Your task to perform on an android device: turn off translation in the chrome app Image 0: 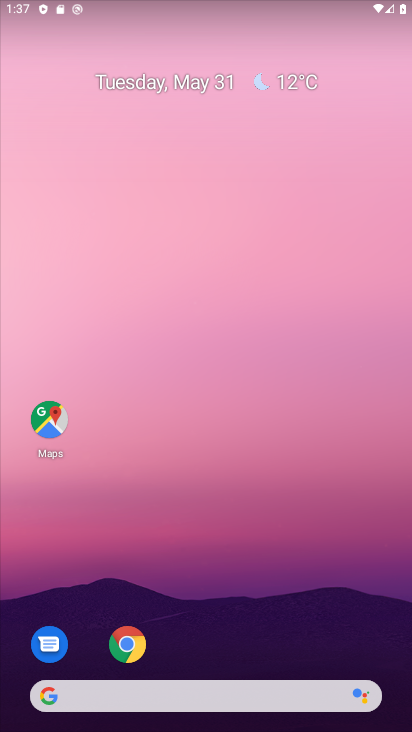
Step 0: click (132, 655)
Your task to perform on an android device: turn off translation in the chrome app Image 1: 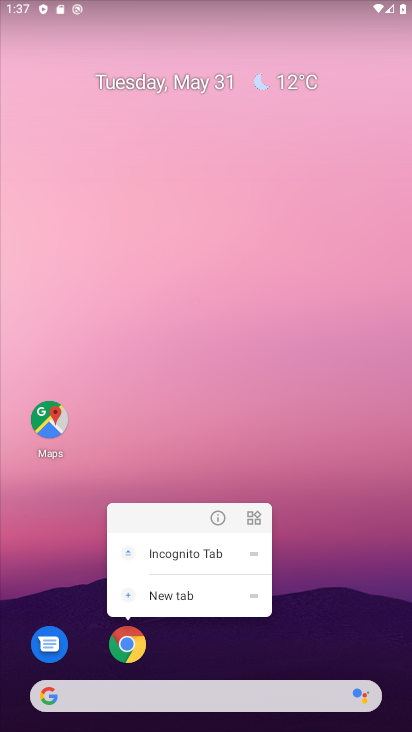
Step 1: click (132, 649)
Your task to perform on an android device: turn off translation in the chrome app Image 2: 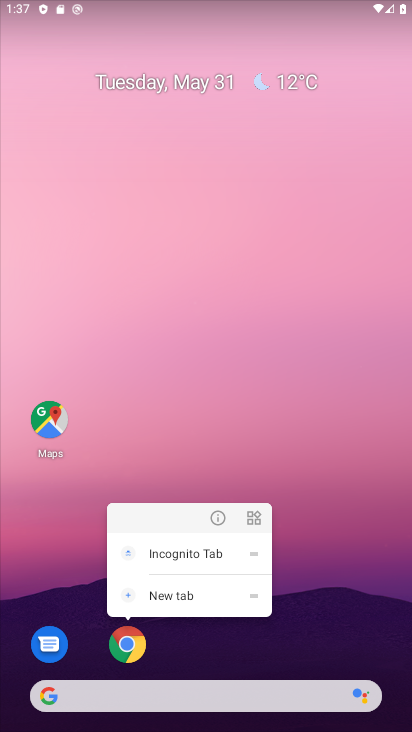
Step 2: click (132, 645)
Your task to perform on an android device: turn off translation in the chrome app Image 3: 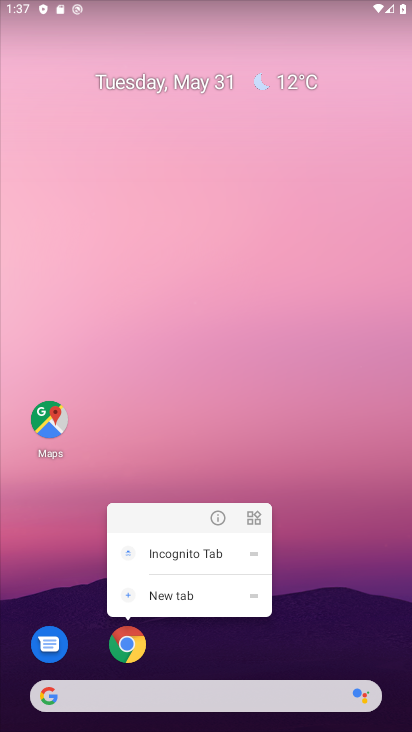
Step 3: click (132, 645)
Your task to perform on an android device: turn off translation in the chrome app Image 4: 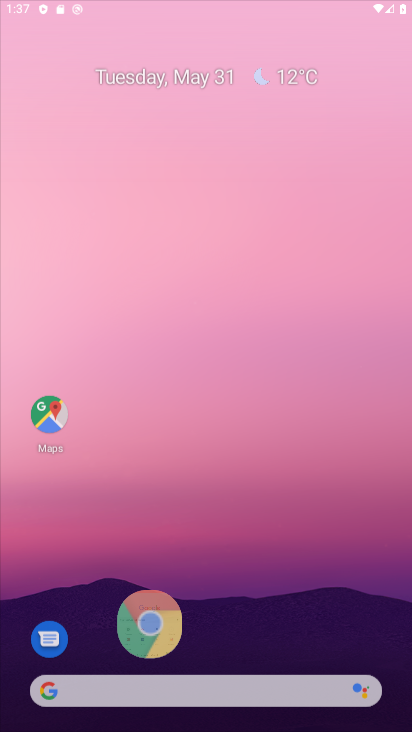
Step 4: click (132, 645)
Your task to perform on an android device: turn off translation in the chrome app Image 5: 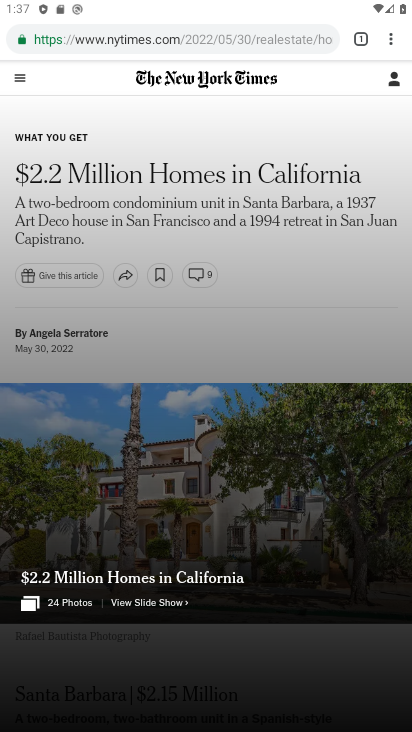
Step 5: drag from (399, 40) to (303, 481)
Your task to perform on an android device: turn off translation in the chrome app Image 6: 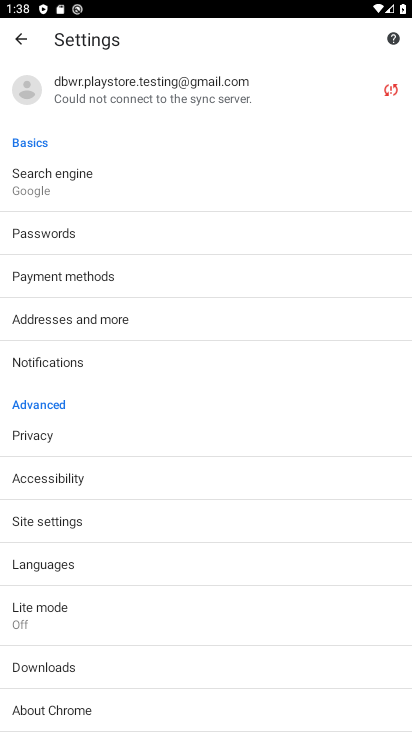
Step 6: click (75, 556)
Your task to perform on an android device: turn off translation in the chrome app Image 7: 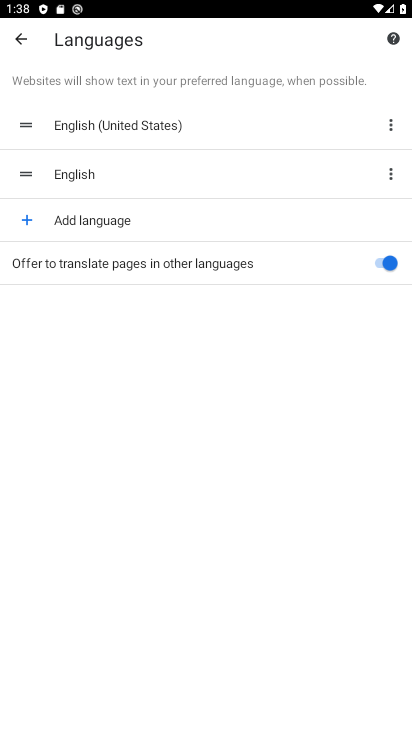
Step 7: click (390, 256)
Your task to perform on an android device: turn off translation in the chrome app Image 8: 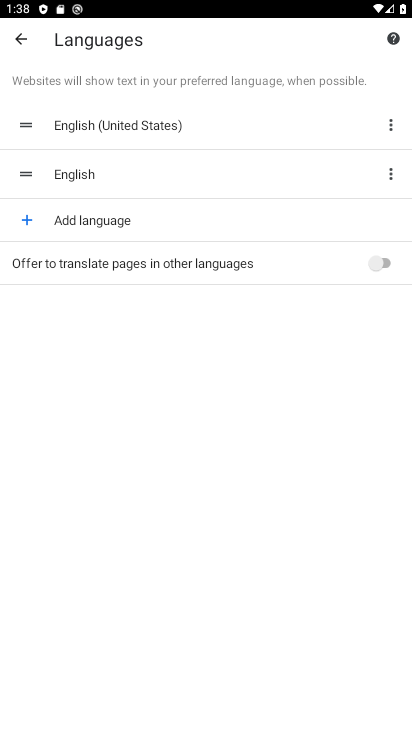
Step 8: task complete